Your task to perform on an android device: Show me popular games on the Play Store Image 0: 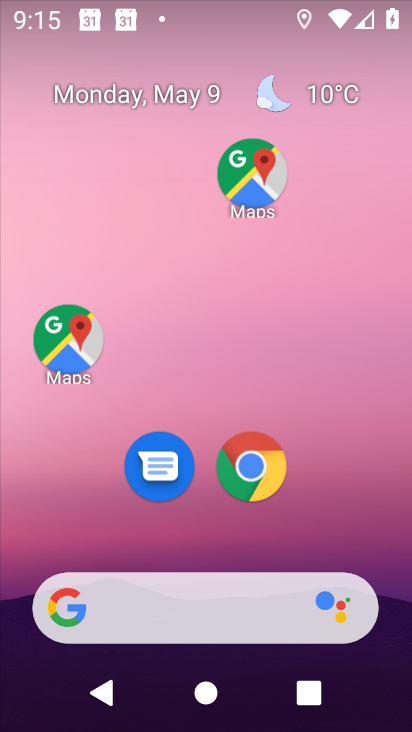
Step 0: drag from (306, 542) to (271, 47)
Your task to perform on an android device: Show me popular games on the Play Store Image 1: 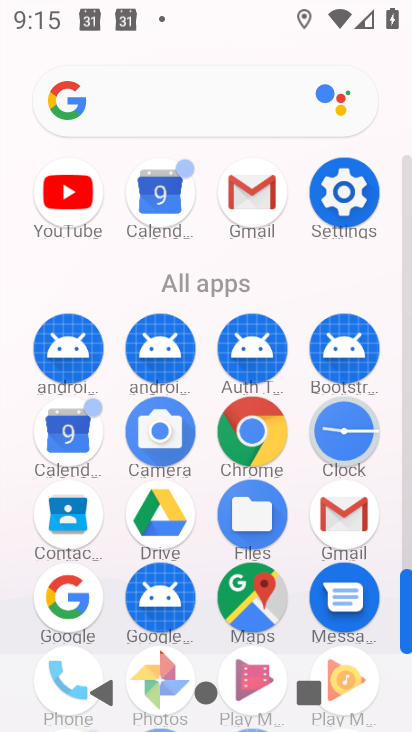
Step 1: drag from (209, 569) to (180, 311)
Your task to perform on an android device: Show me popular games on the Play Store Image 2: 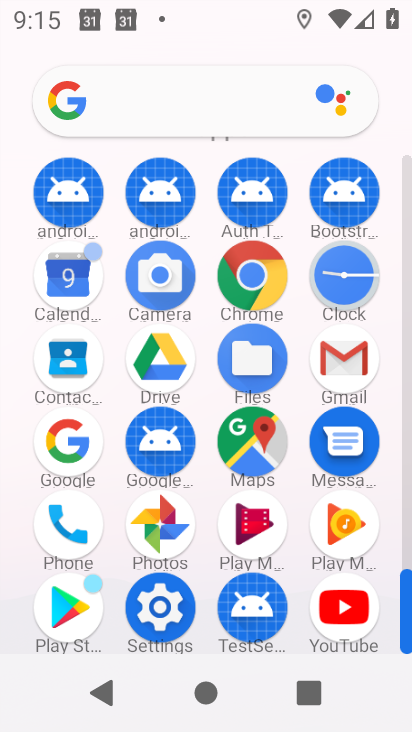
Step 2: click (80, 607)
Your task to perform on an android device: Show me popular games on the Play Store Image 3: 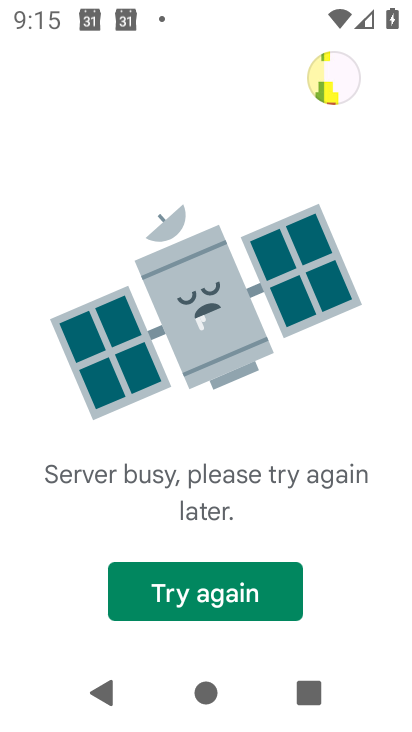
Step 3: click (236, 607)
Your task to perform on an android device: Show me popular games on the Play Store Image 4: 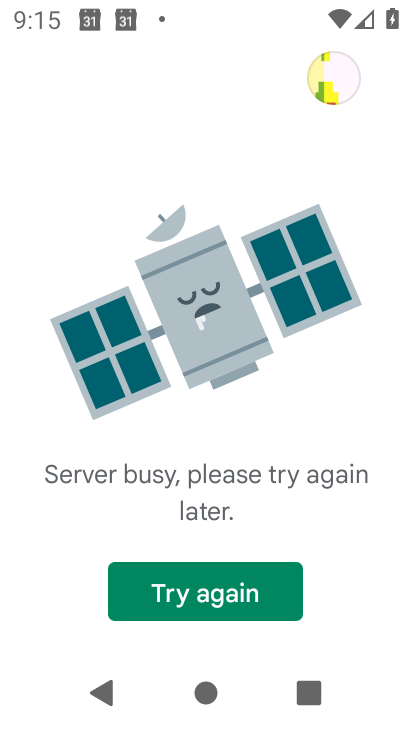
Step 4: click (232, 591)
Your task to perform on an android device: Show me popular games on the Play Store Image 5: 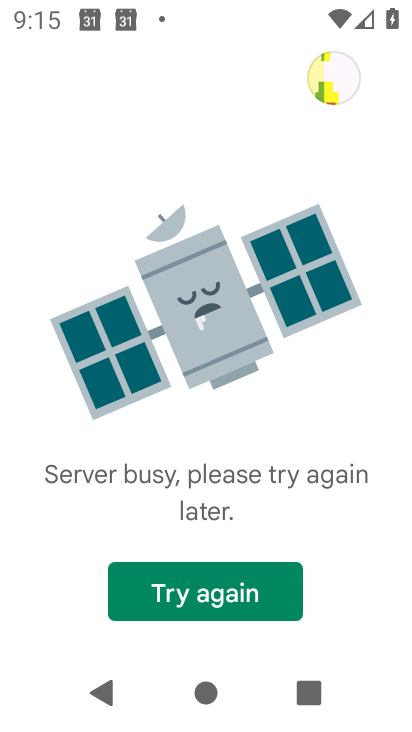
Step 5: click (232, 591)
Your task to perform on an android device: Show me popular games on the Play Store Image 6: 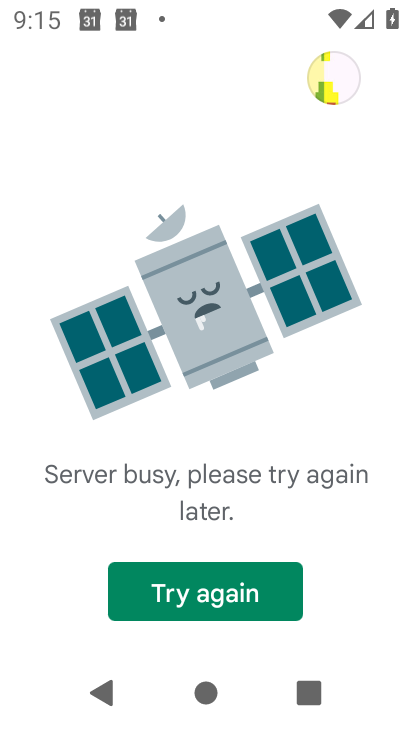
Step 6: click (232, 591)
Your task to perform on an android device: Show me popular games on the Play Store Image 7: 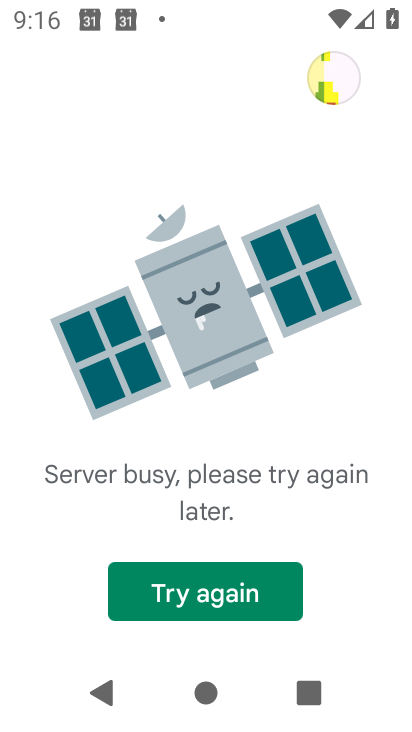
Step 7: task complete